Your task to perform on an android device: Open Android settings Image 0: 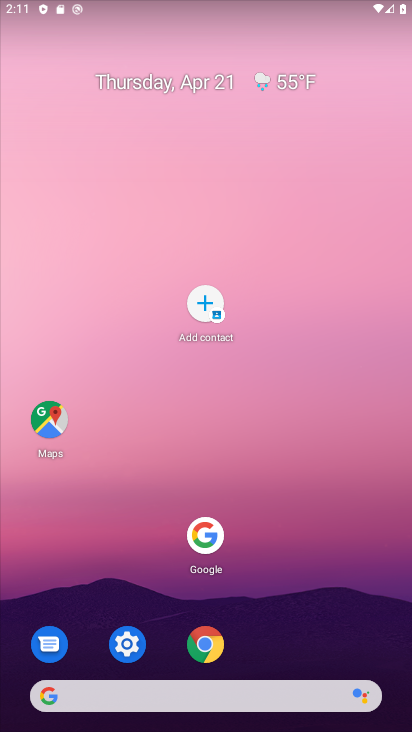
Step 0: drag from (260, 697) to (106, 121)
Your task to perform on an android device: Open Android settings Image 1: 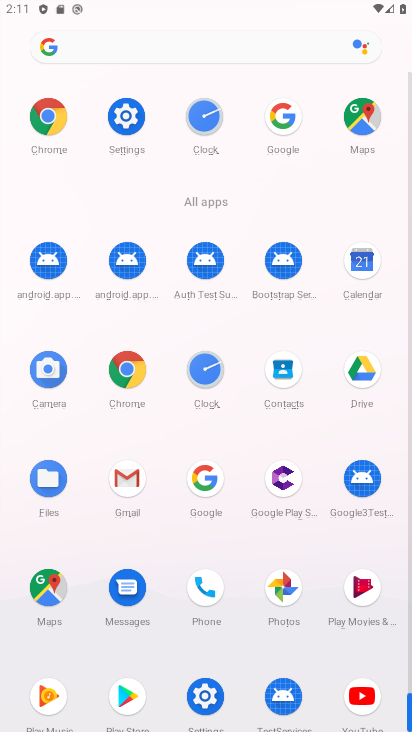
Step 1: click (122, 110)
Your task to perform on an android device: Open Android settings Image 2: 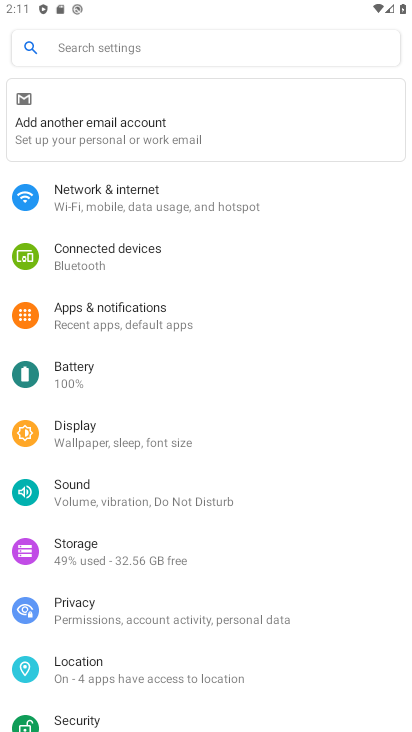
Step 2: drag from (144, 591) to (42, 274)
Your task to perform on an android device: Open Android settings Image 3: 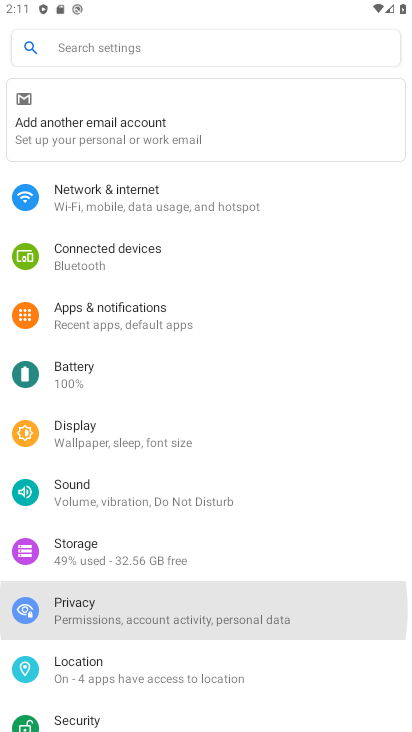
Step 3: drag from (130, 379) to (140, 134)
Your task to perform on an android device: Open Android settings Image 4: 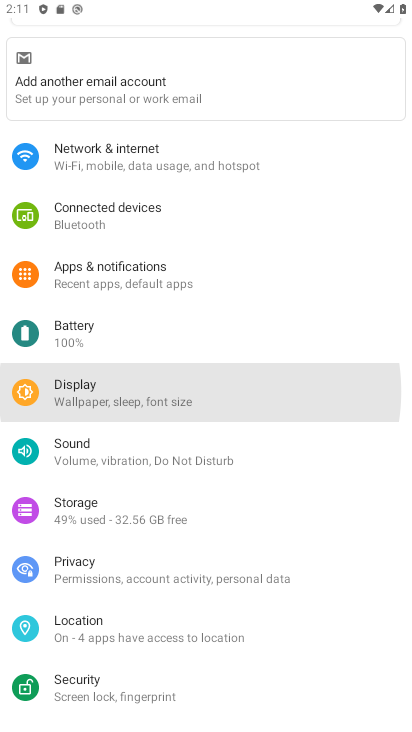
Step 4: drag from (172, 530) to (154, 81)
Your task to perform on an android device: Open Android settings Image 5: 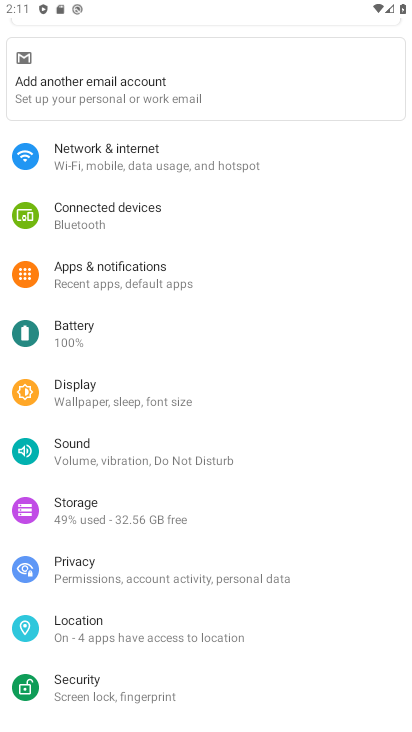
Step 5: drag from (122, 634) to (90, 294)
Your task to perform on an android device: Open Android settings Image 6: 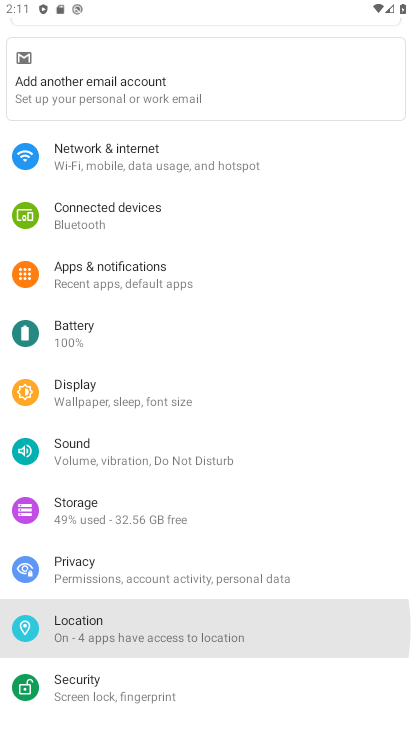
Step 6: drag from (158, 610) to (99, 141)
Your task to perform on an android device: Open Android settings Image 7: 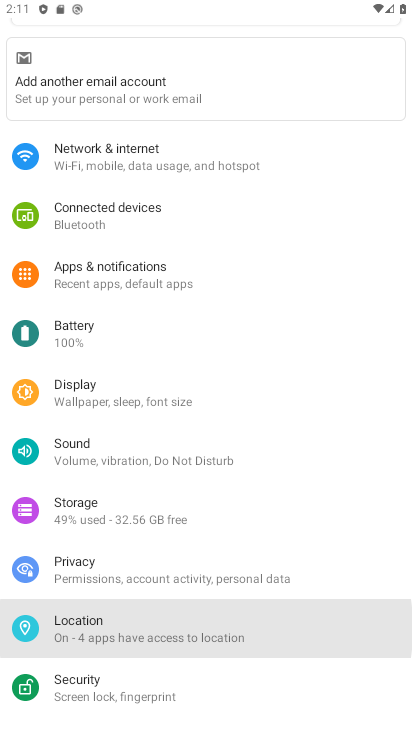
Step 7: drag from (135, 534) to (76, 66)
Your task to perform on an android device: Open Android settings Image 8: 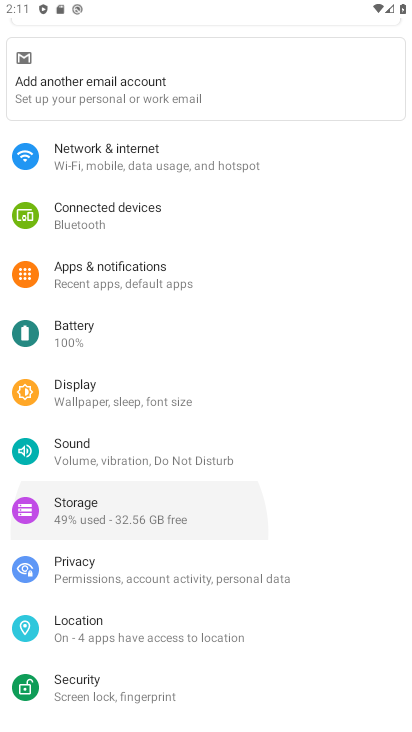
Step 8: drag from (171, 583) to (71, 78)
Your task to perform on an android device: Open Android settings Image 9: 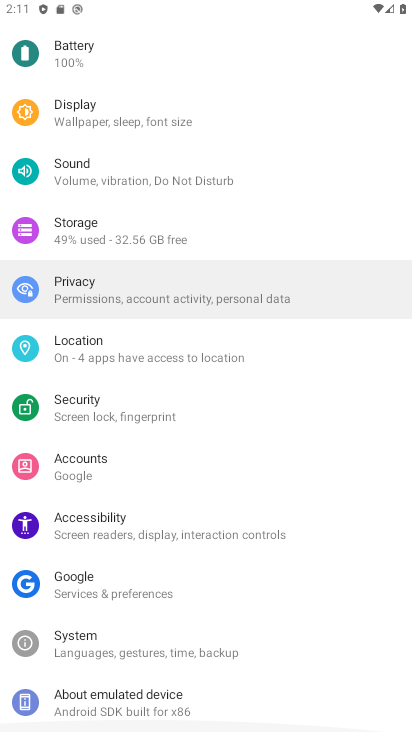
Step 9: drag from (158, 365) to (98, 42)
Your task to perform on an android device: Open Android settings Image 10: 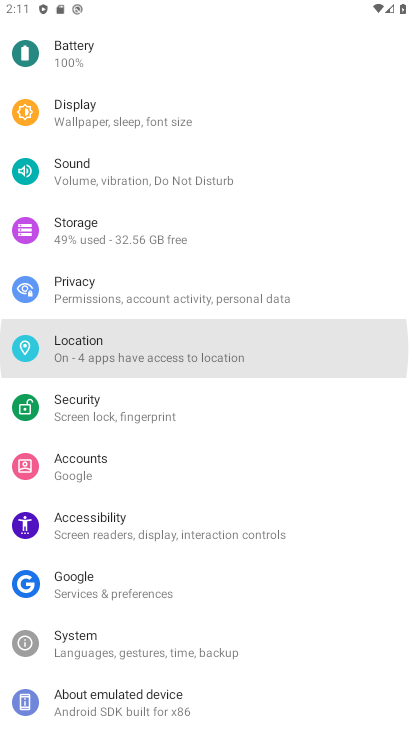
Step 10: drag from (187, 567) to (144, 87)
Your task to perform on an android device: Open Android settings Image 11: 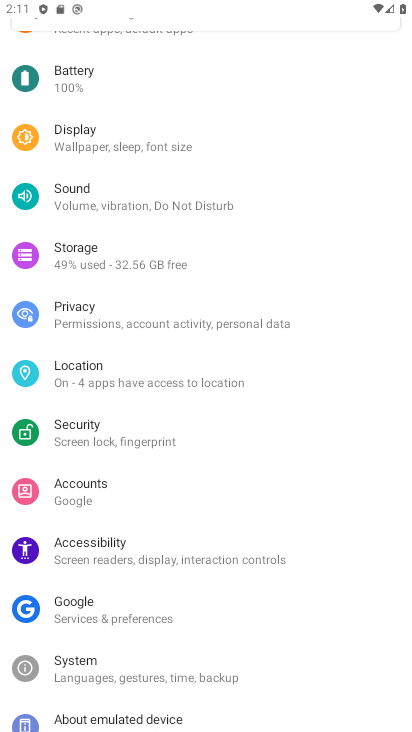
Step 11: click (99, 717)
Your task to perform on an android device: Open Android settings Image 12: 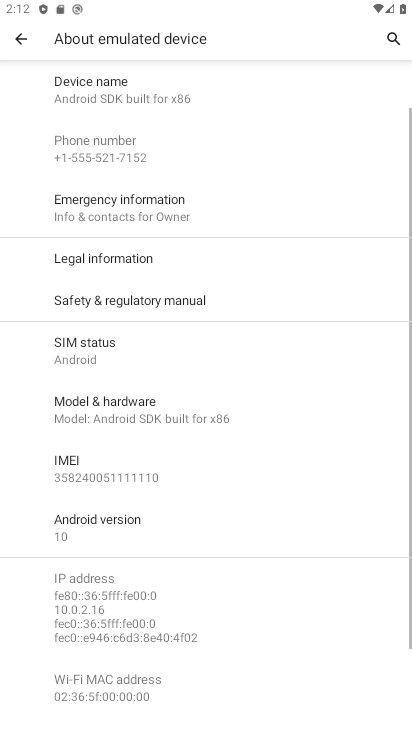
Step 12: task complete